Your task to perform on an android device: Open Amazon Image 0: 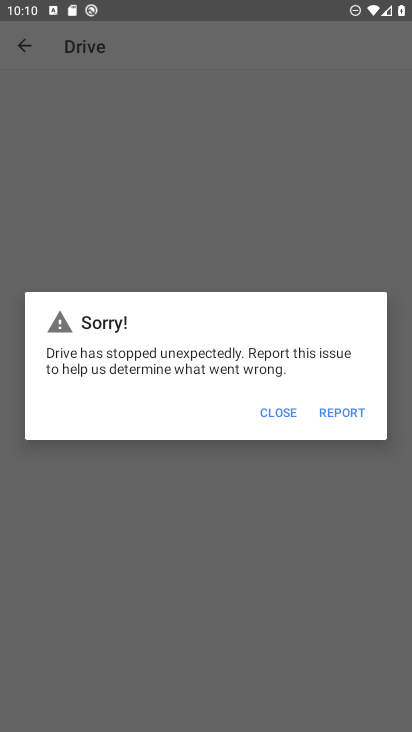
Step 0: press home button
Your task to perform on an android device: Open Amazon Image 1: 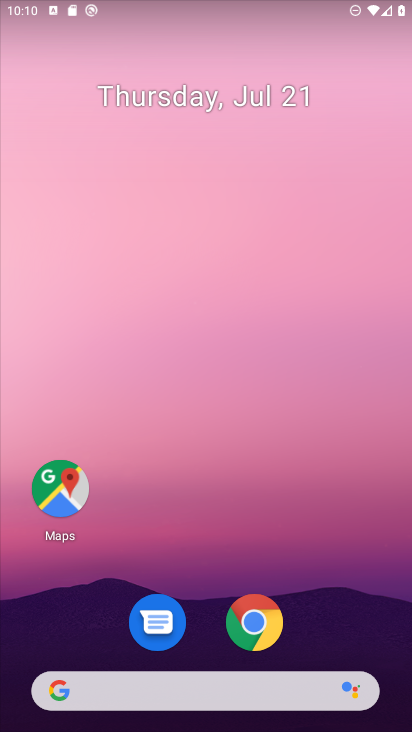
Step 1: click (265, 633)
Your task to perform on an android device: Open Amazon Image 2: 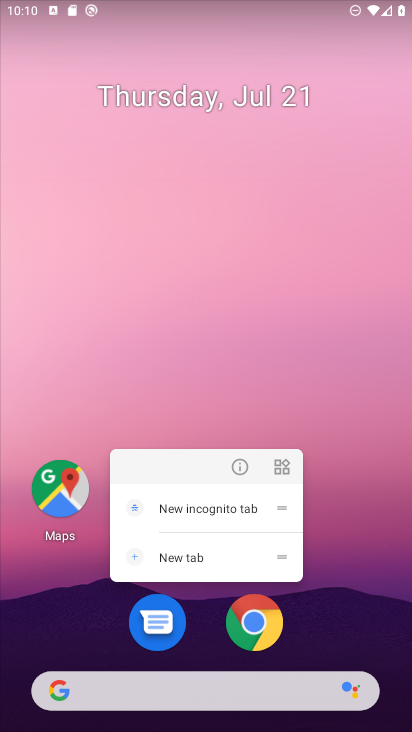
Step 2: click (265, 633)
Your task to perform on an android device: Open Amazon Image 3: 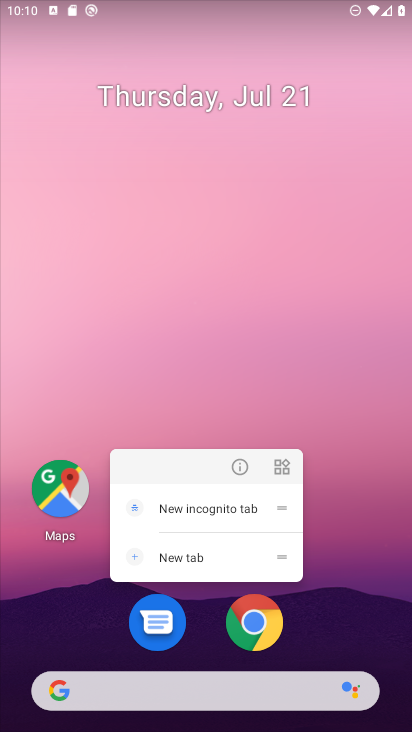
Step 3: click (265, 633)
Your task to perform on an android device: Open Amazon Image 4: 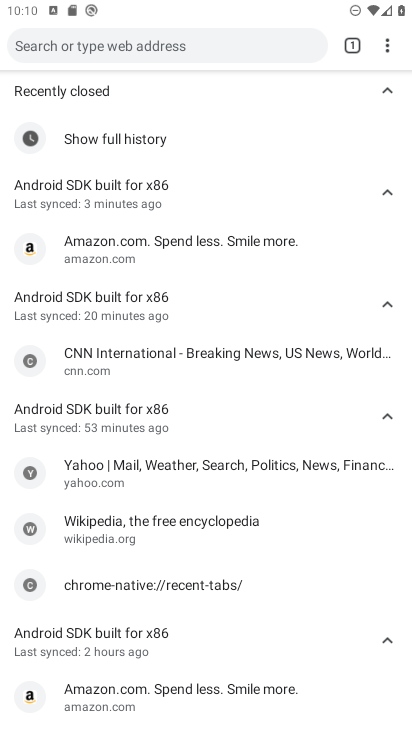
Step 4: click (129, 251)
Your task to perform on an android device: Open Amazon Image 5: 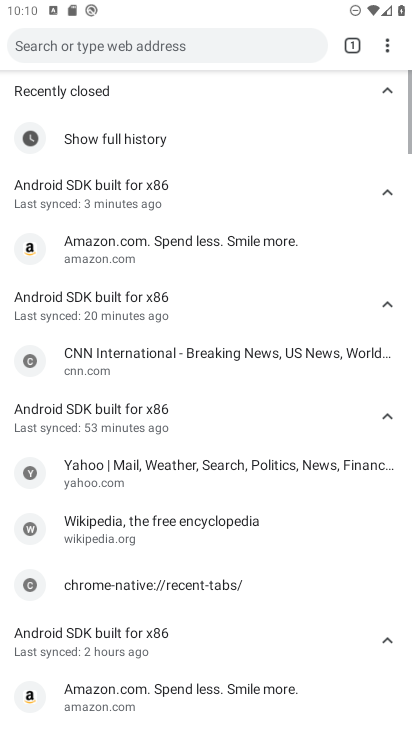
Step 5: click (129, 251)
Your task to perform on an android device: Open Amazon Image 6: 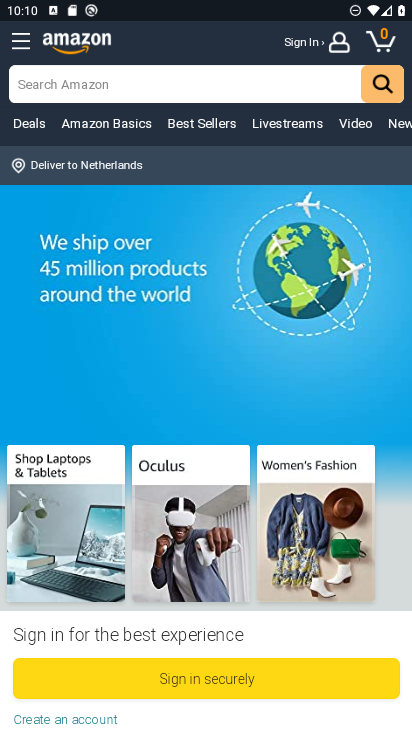
Step 6: task complete